Your task to perform on an android device: find photos in the google photos app Image 0: 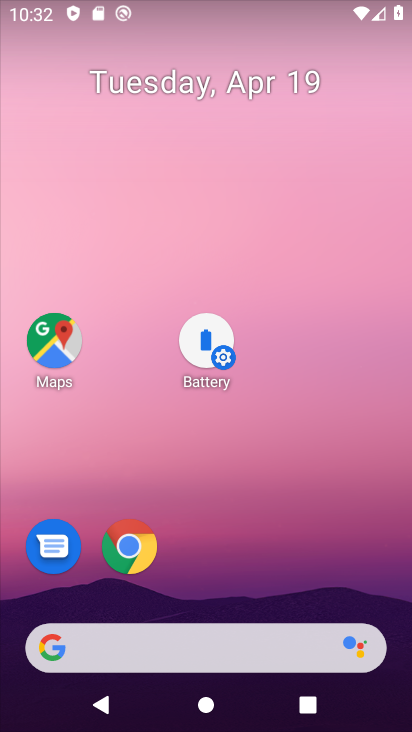
Step 0: drag from (224, 303) to (229, 80)
Your task to perform on an android device: find photos in the google photos app Image 1: 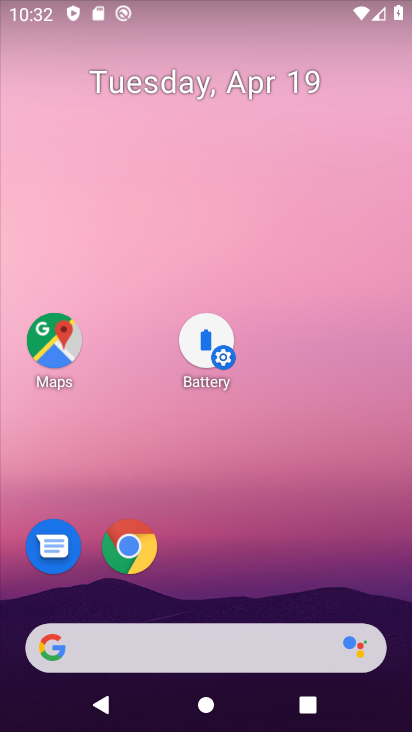
Step 1: drag from (263, 615) to (354, 45)
Your task to perform on an android device: find photos in the google photos app Image 2: 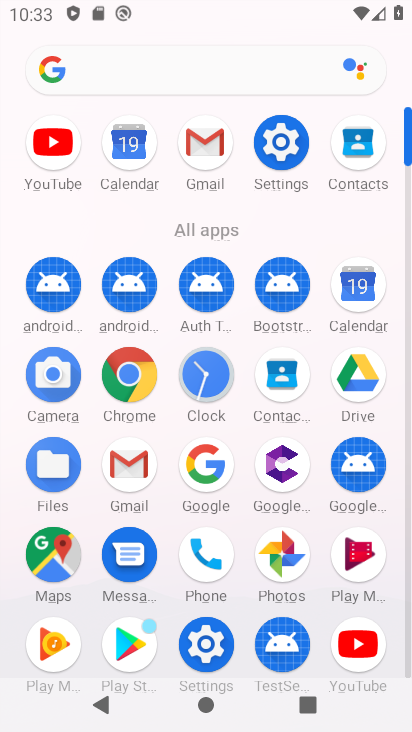
Step 2: click (279, 552)
Your task to perform on an android device: find photos in the google photos app Image 3: 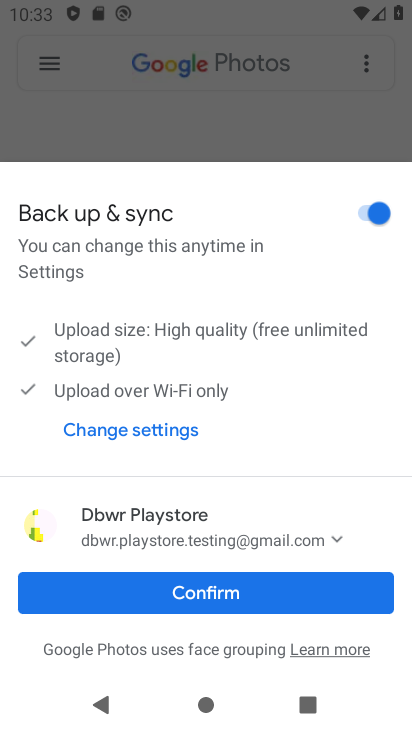
Step 3: click (192, 588)
Your task to perform on an android device: find photos in the google photos app Image 4: 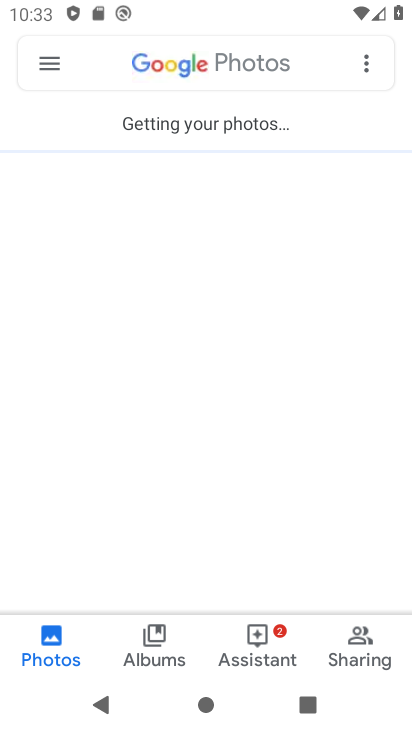
Step 4: click (49, 645)
Your task to perform on an android device: find photos in the google photos app Image 5: 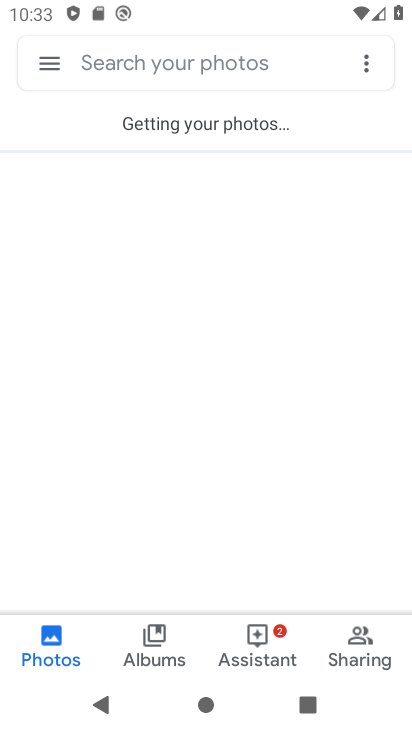
Step 5: task complete